Your task to perform on an android device: Show me productivity apps on the Play Store Image 0: 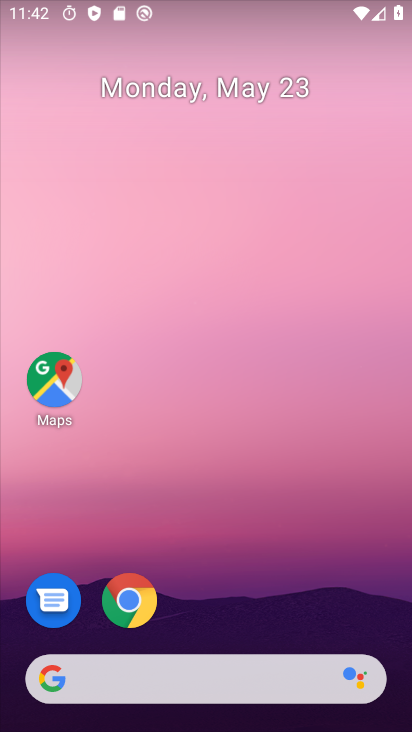
Step 0: drag from (252, 575) to (213, 95)
Your task to perform on an android device: Show me productivity apps on the Play Store Image 1: 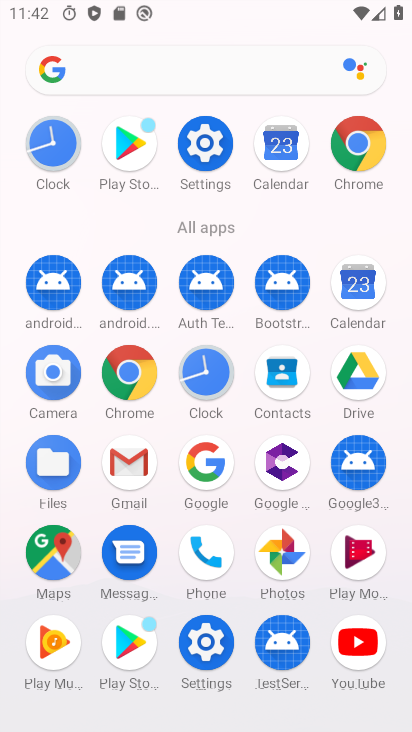
Step 1: click (133, 630)
Your task to perform on an android device: Show me productivity apps on the Play Store Image 2: 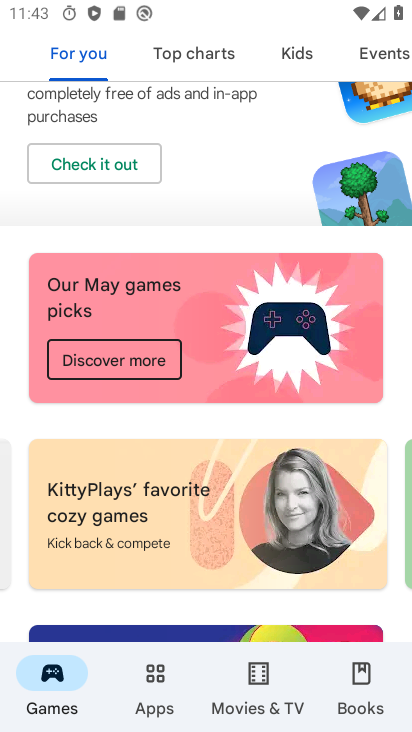
Step 2: click (159, 692)
Your task to perform on an android device: Show me productivity apps on the Play Store Image 3: 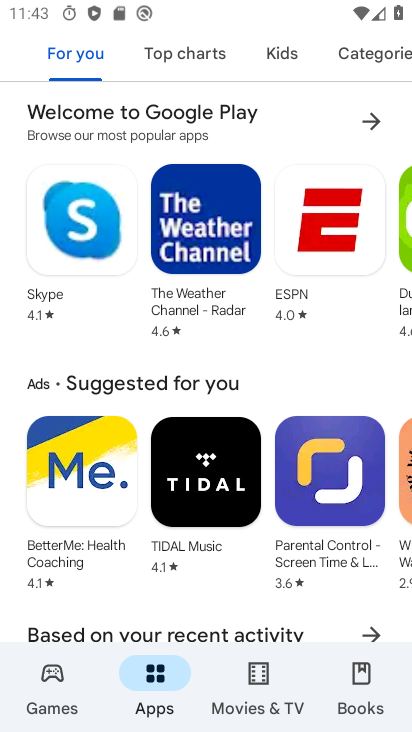
Step 3: task complete